Your task to perform on an android device: See recent photos Image 0: 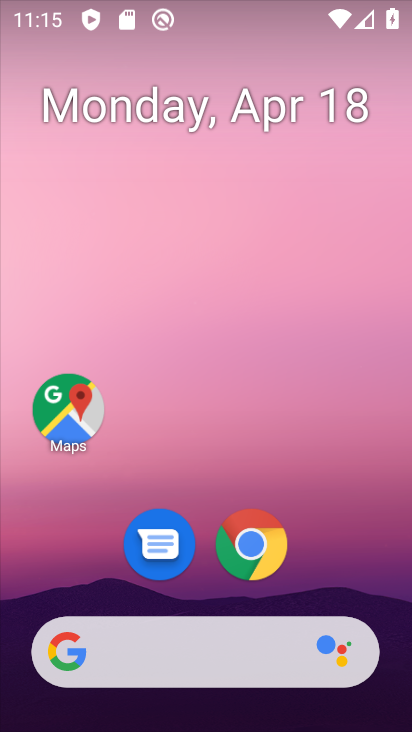
Step 0: drag from (376, 369) to (376, 7)
Your task to perform on an android device: See recent photos Image 1: 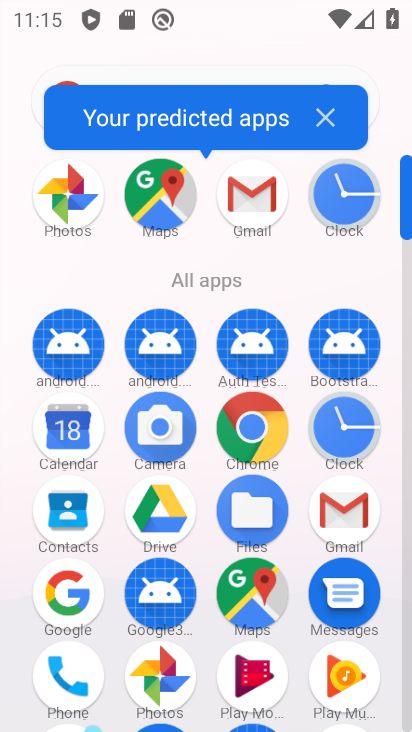
Step 1: click (71, 201)
Your task to perform on an android device: See recent photos Image 2: 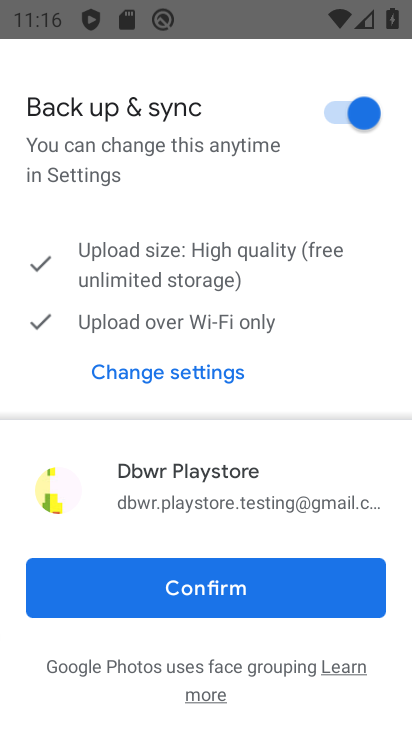
Step 2: click (221, 587)
Your task to perform on an android device: See recent photos Image 3: 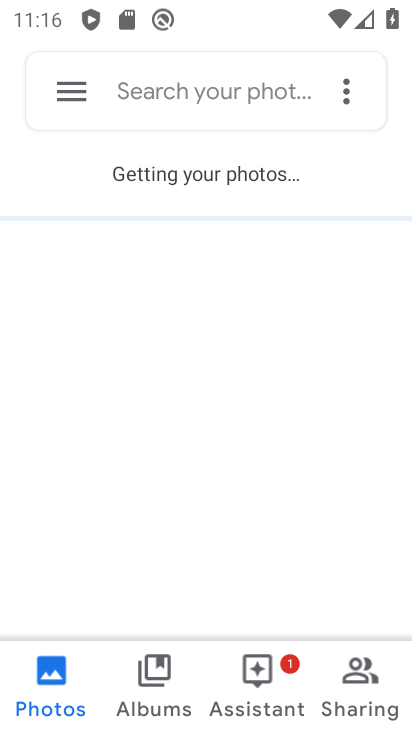
Step 3: click (79, 92)
Your task to perform on an android device: See recent photos Image 4: 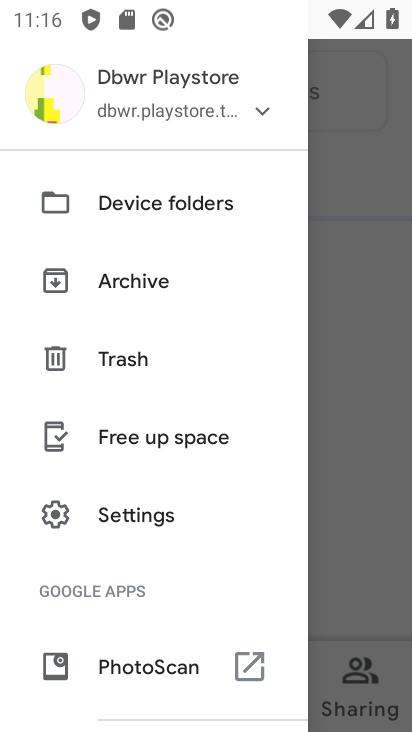
Step 4: drag from (206, 543) to (209, 200)
Your task to perform on an android device: See recent photos Image 5: 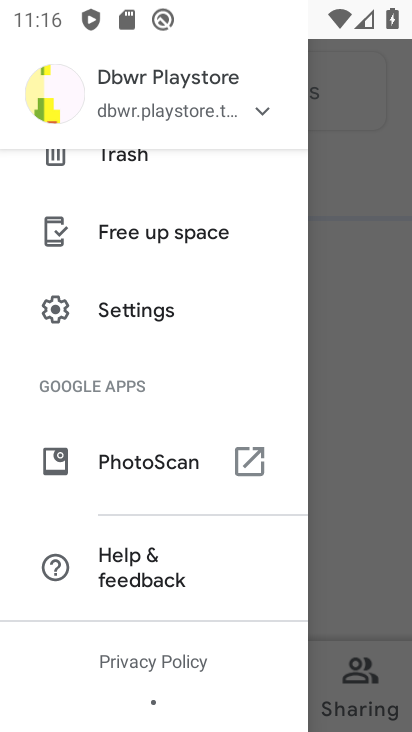
Step 5: click (367, 495)
Your task to perform on an android device: See recent photos Image 6: 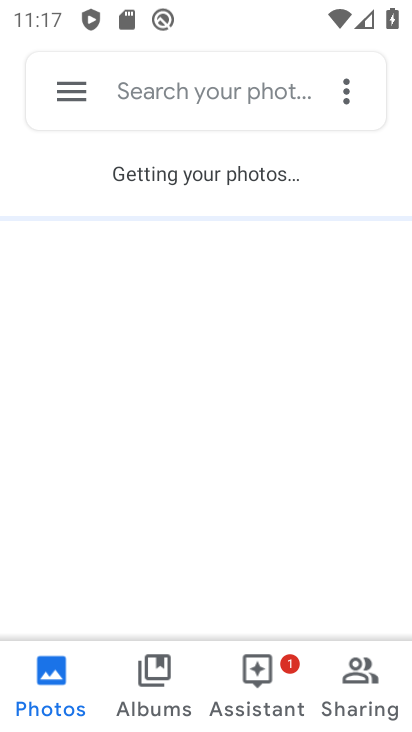
Step 6: task complete